Your task to perform on an android device: change notifications settings Image 0: 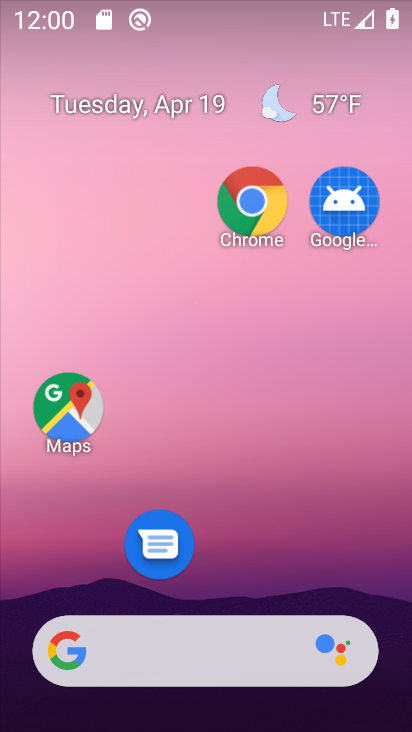
Step 0: drag from (291, 488) to (251, 122)
Your task to perform on an android device: change notifications settings Image 1: 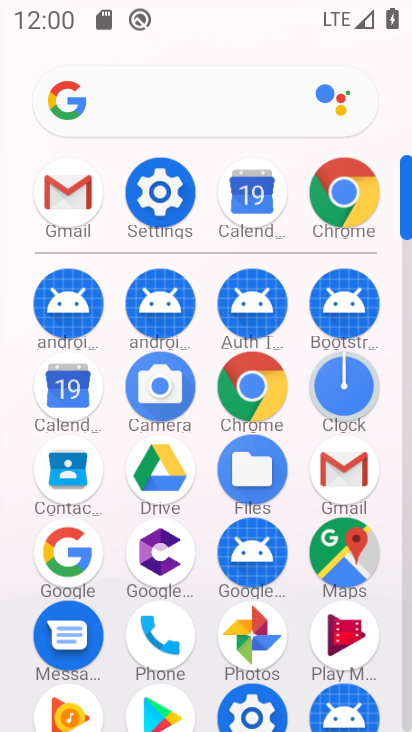
Step 1: click (168, 182)
Your task to perform on an android device: change notifications settings Image 2: 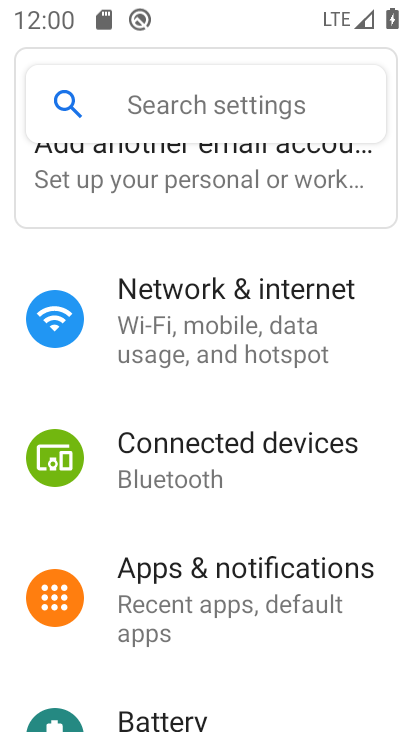
Step 2: click (211, 577)
Your task to perform on an android device: change notifications settings Image 3: 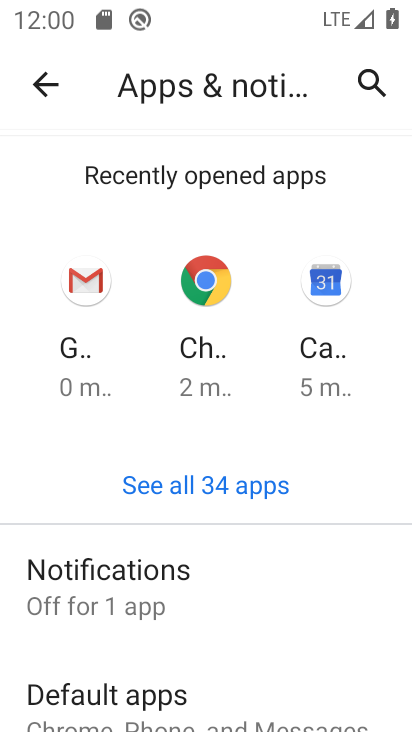
Step 3: click (160, 572)
Your task to perform on an android device: change notifications settings Image 4: 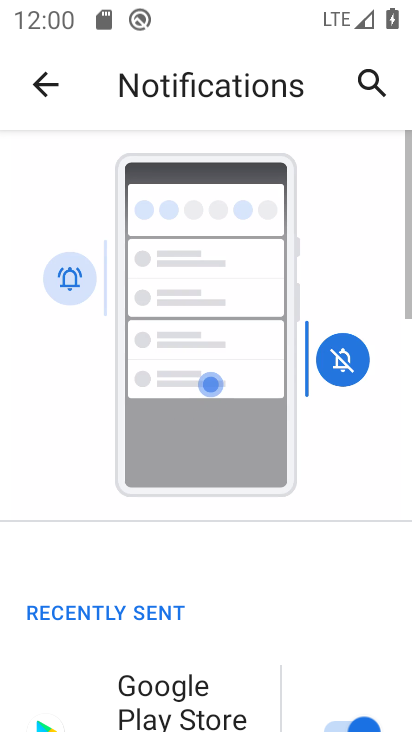
Step 4: drag from (257, 636) to (304, 66)
Your task to perform on an android device: change notifications settings Image 5: 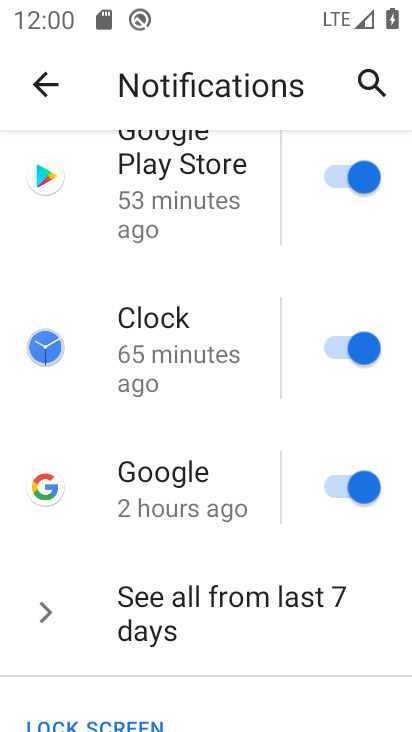
Step 5: click (326, 160)
Your task to perform on an android device: change notifications settings Image 6: 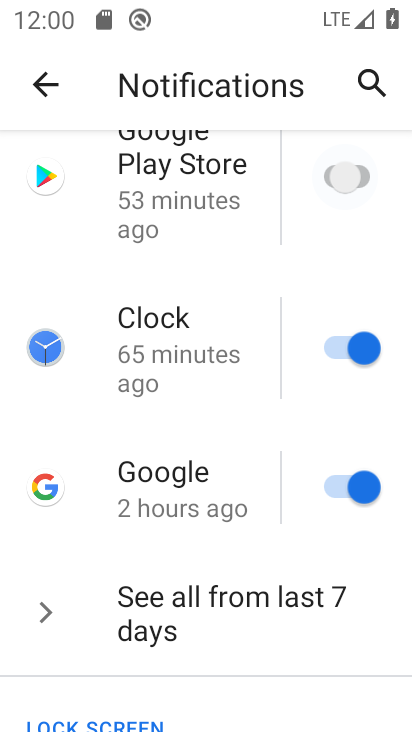
Step 6: click (339, 337)
Your task to perform on an android device: change notifications settings Image 7: 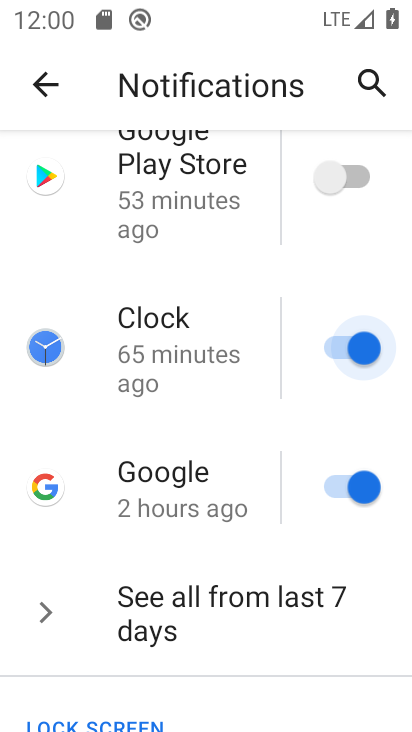
Step 7: click (348, 489)
Your task to perform on an android device: change notifications settings Image 8: 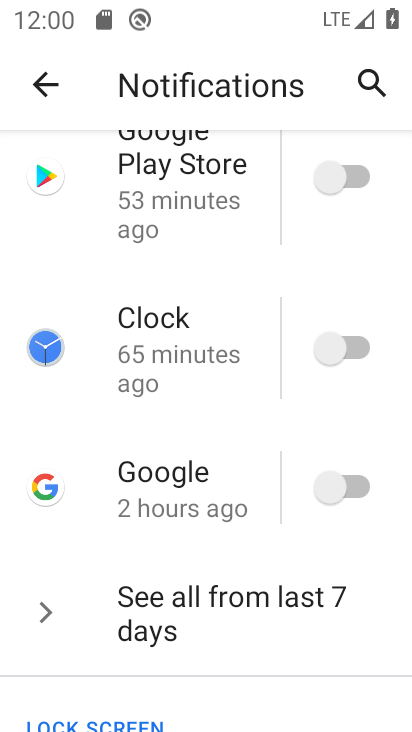
Step 8: click (260, 608)
Your task to perform on an android device: change notifications settings Image 9: 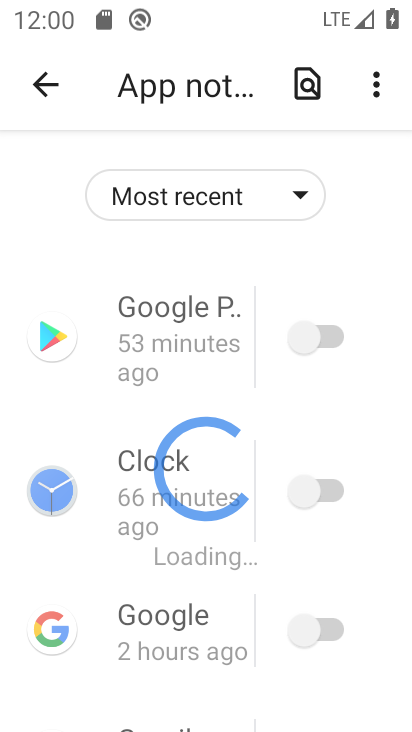
Step 9: drag from (179, 578) to (218, 53)
Your task to perform on an android device: change notifications settings Image 10: 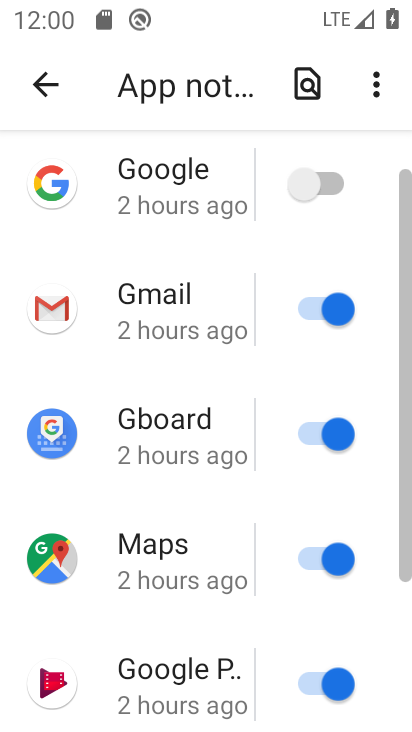
Step 10: click (322, 284)
Your task to perform on an android device: change notifications settings Image 11: 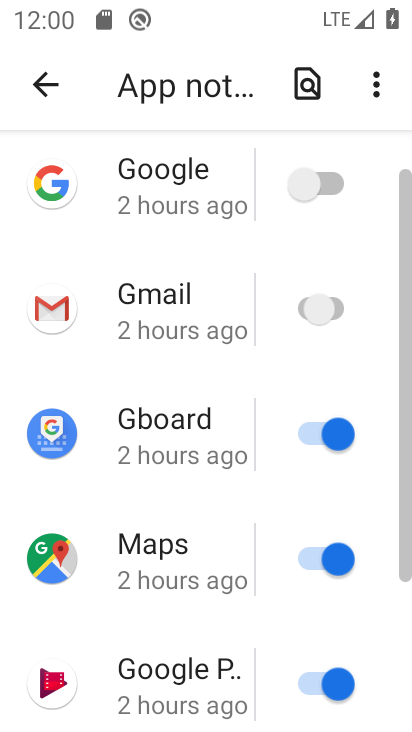
Step 11: click (327, 430)
Your task to perform on an android device: change notifications settings Image 12: 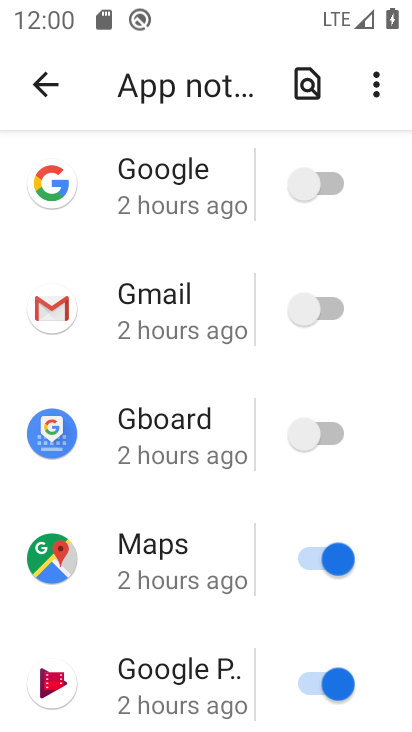
Step 12: click (326, 562)
Your task to perform on an android device: change notifications settings Image 13: 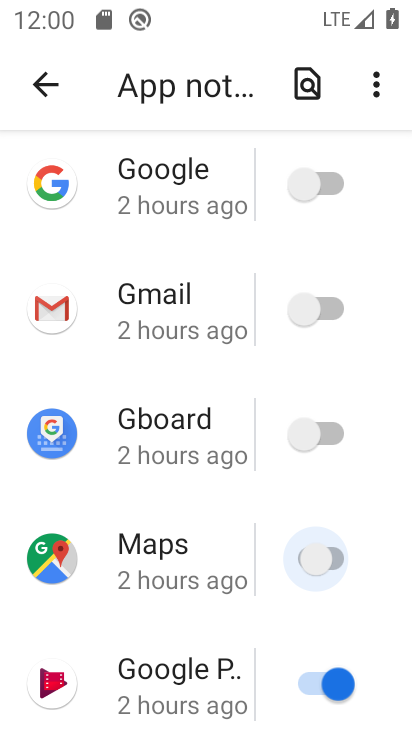
Step 13: click (324, 688)
Your task to perform on an android device: change notifications settings Image 14: 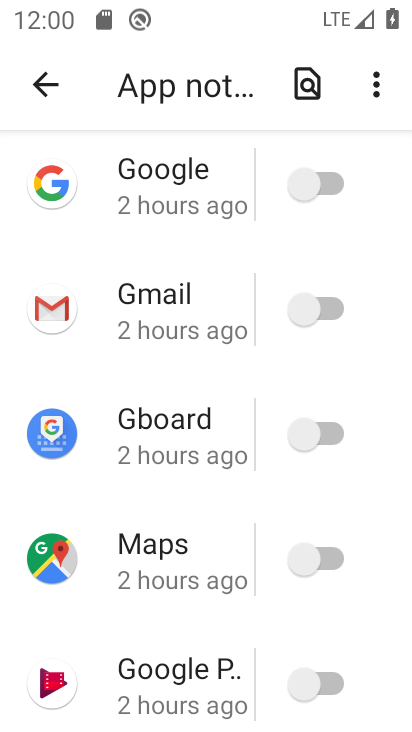
Step 14: drag from (222, 670) to (202, 227)
Your task to perform on an android device: change notifications settings Image 15: 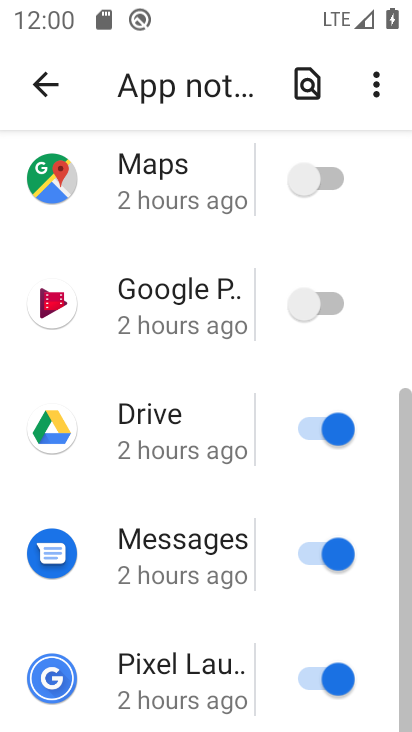
Step 15: click (310, 431)
Your task to perform on an android device: change notifications settings Image 16: 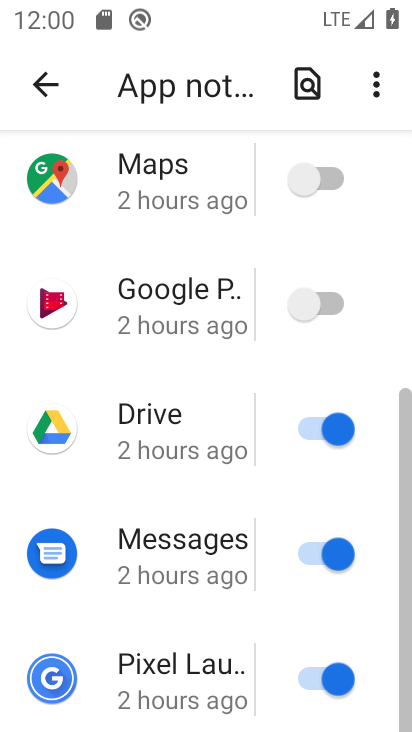
Step 16: click (333, 554)
Your task to perform on an android device: change notifications settings Image 17: 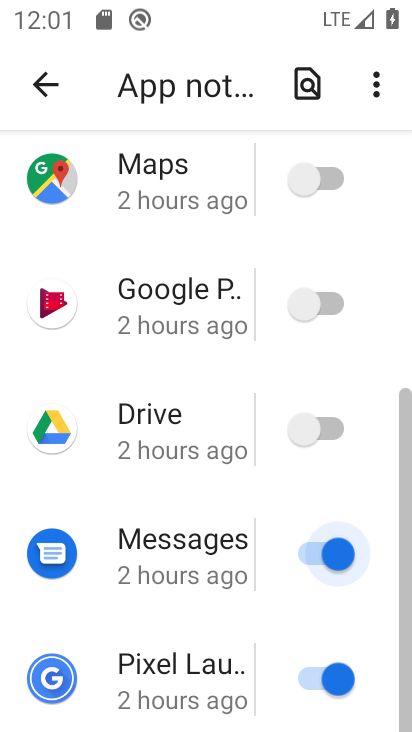
Step 17: click (338, 689)
Your task to perform on an android device: change notifications settings Image 18: 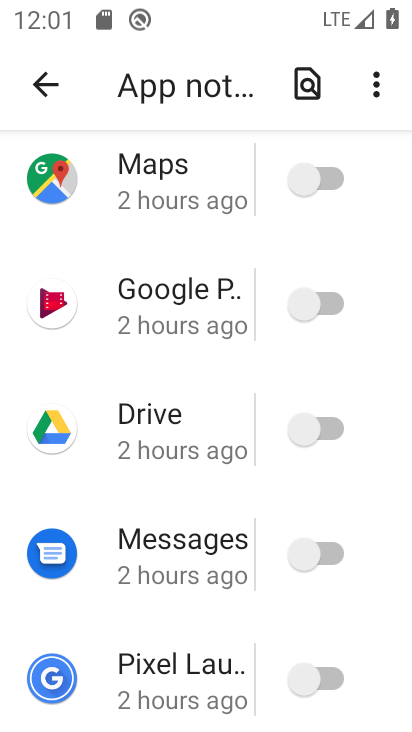
Step 18: task complete